Your task to perform on an android device: change your default location settings in chrome Image 0: 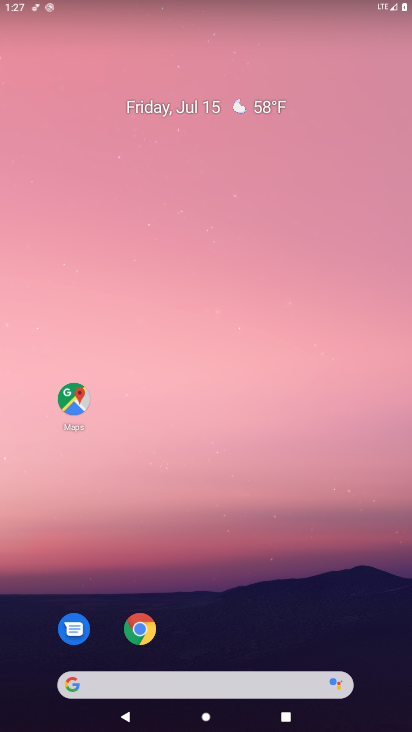
Step 0: drag from (261, 637) to (247, 17)
Your task to perform on an android device: change your default location settings in chrome Image 1: 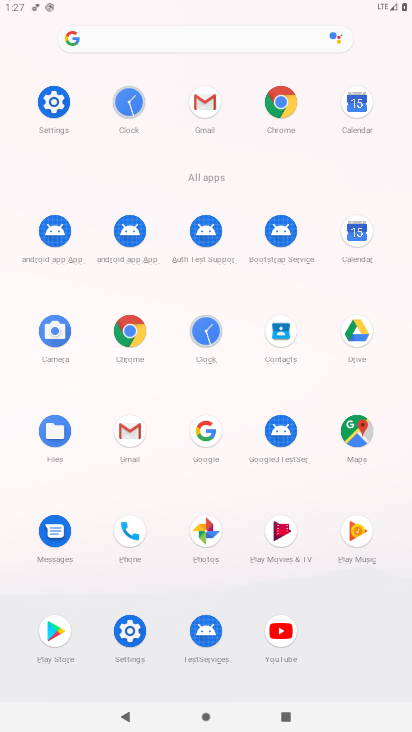
Step 1: click (140, 348)
Your task to perform on an android device: change your default location settings in chrome Image 2: 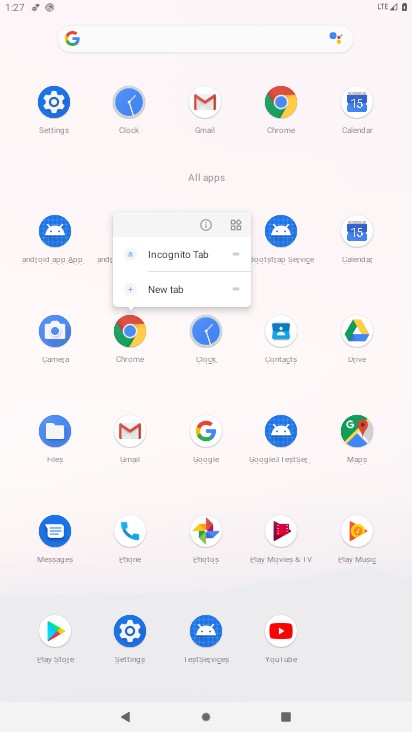
Step 2: click (195, 228)
Your task to perform on an android device: change your default location settings in chrome Image 3: 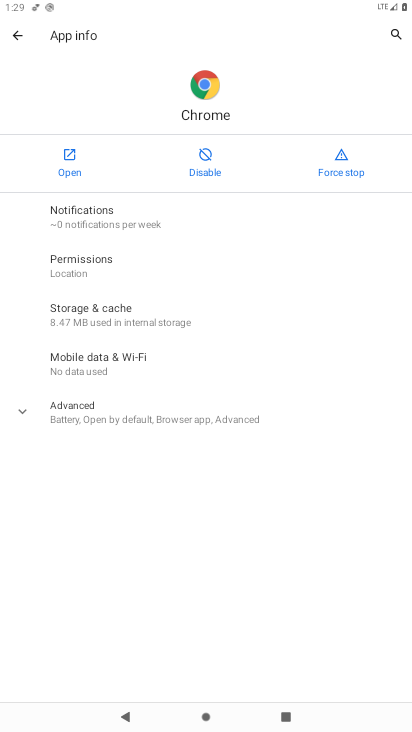
Step 3: click (130, 278)
Your task to perform on an android device: change your default location settings in chrome Image 4: 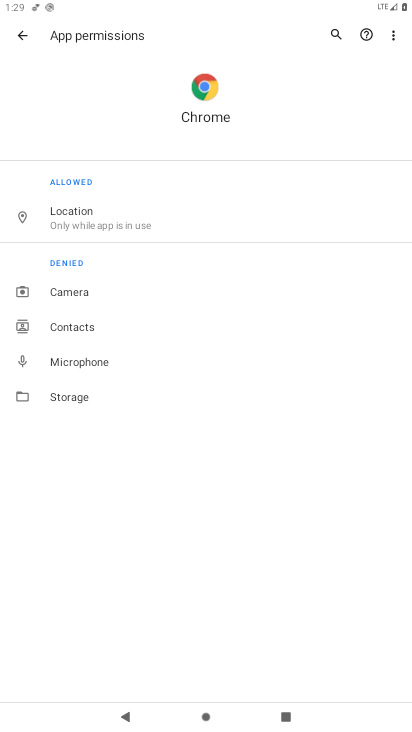
Step 4: click (71, 210)
Your task to perform on an android device: change your default location settings in chrome Image 5: 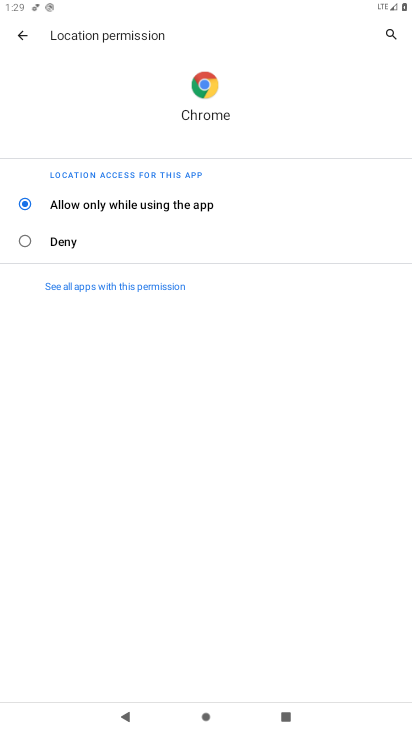
Step 5: click (111, 174)
Your task to perform on an android device: change your default location settings in chrome Image 6: 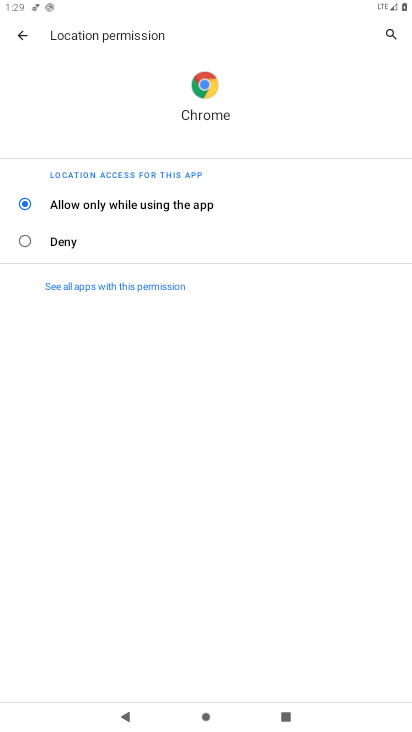
Step 6: task complete